Your task to perform on an android device: Open wifi settings Image 0: 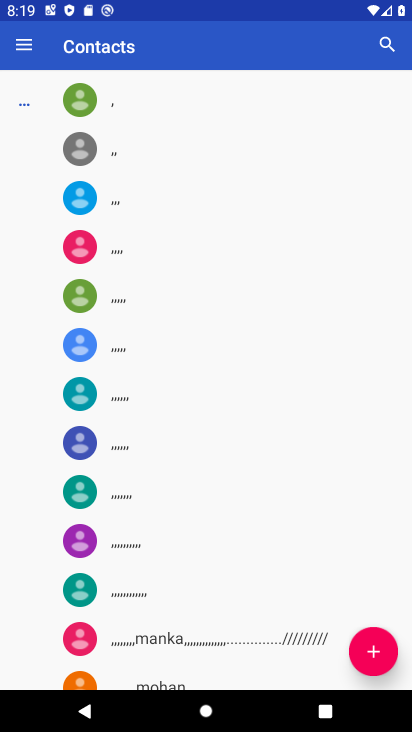
Step 0: press home button
Your task to perform on an android device: Open wifi settings Image 1: 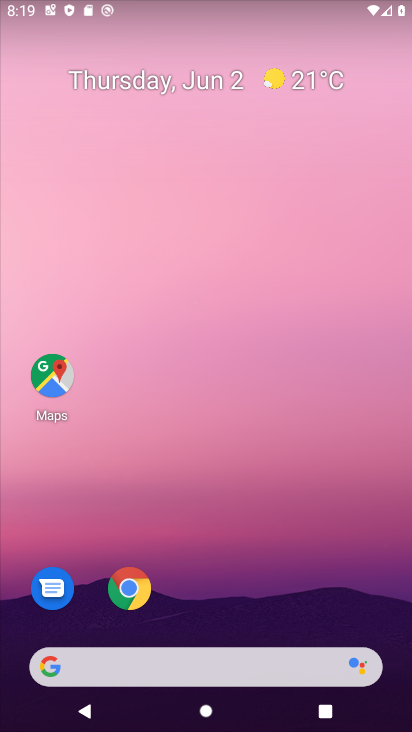
Step 1: drag from (222, 644) to (224, 242)
Your task to perform on an android device: Open wifi settings Image 2: 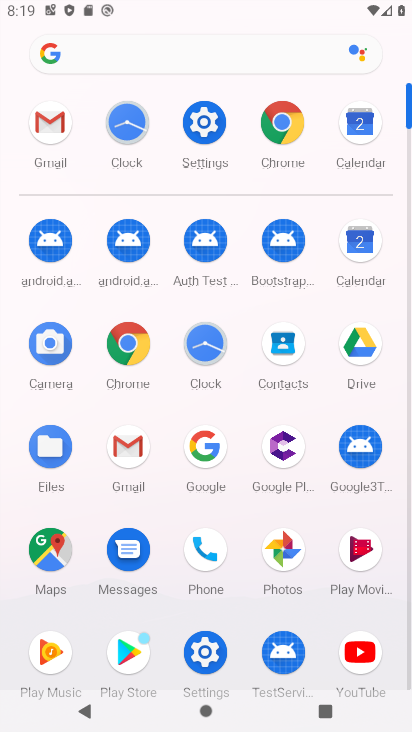
Step 2: click (193, 123)
Your task to perform on an android device: Open wifi settings Image 3: 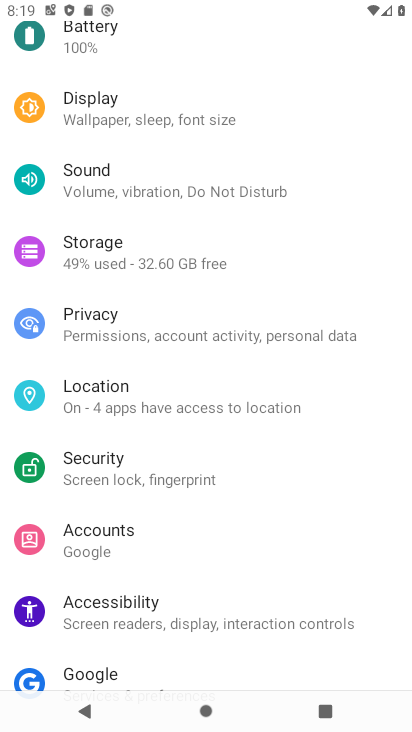
Step 3: drag from (193, 123) to (195, 520)
Your task to perform on an android device: Open wifi settings Image 4: 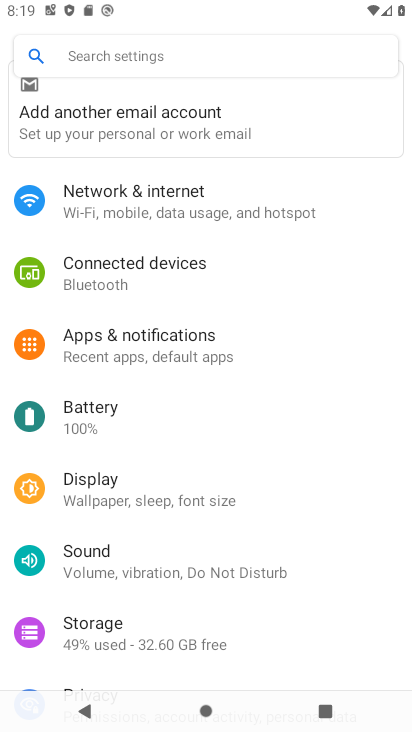
Step 4: click (126, 202)
Your task to perform on an android device: Open wifi settings Image 5: 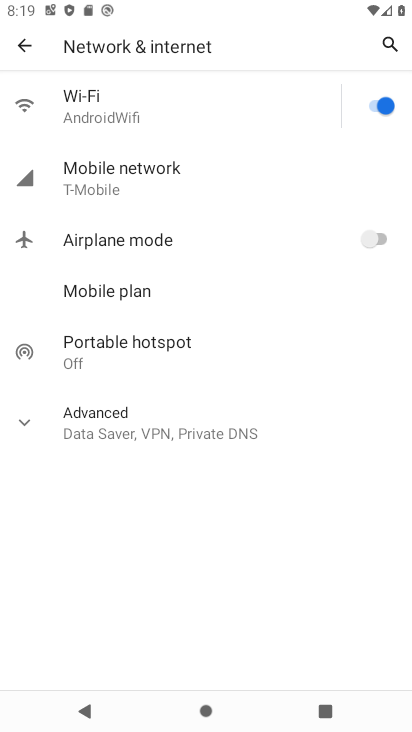
Step 5: click (91, 118)
Your task to perform on an android device: Open wifi settings Image 6: 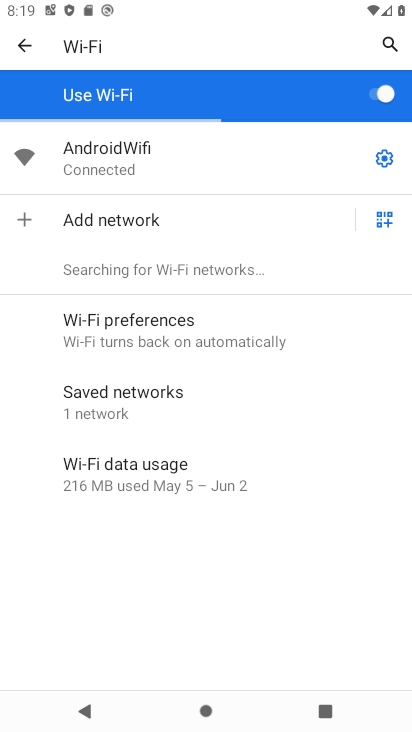
Step 6: task complete